Your task to perform on an android device: Go to battery settings Image 0: 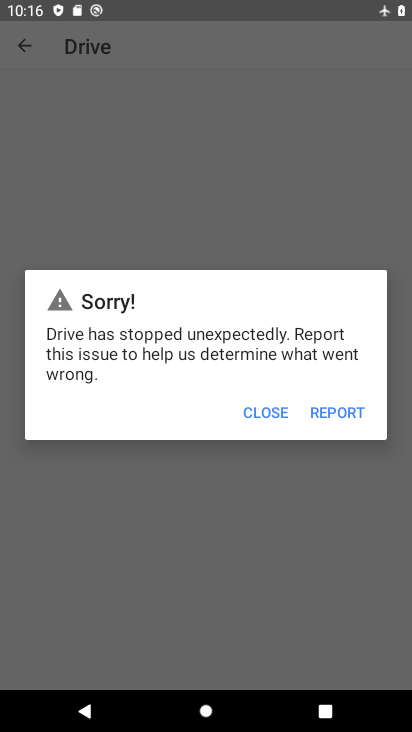
Step 0: press back button
Your task to perform on an android device: Go to battery settings Image 1: 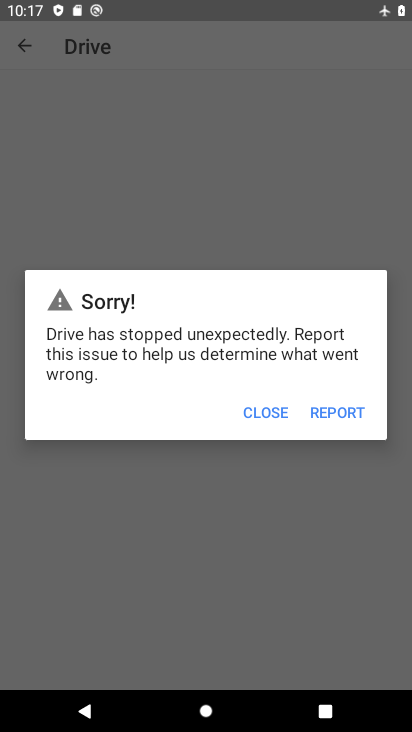
Step 1: press home button
Your task to perform on an android device: Go to battery settings Image 2: 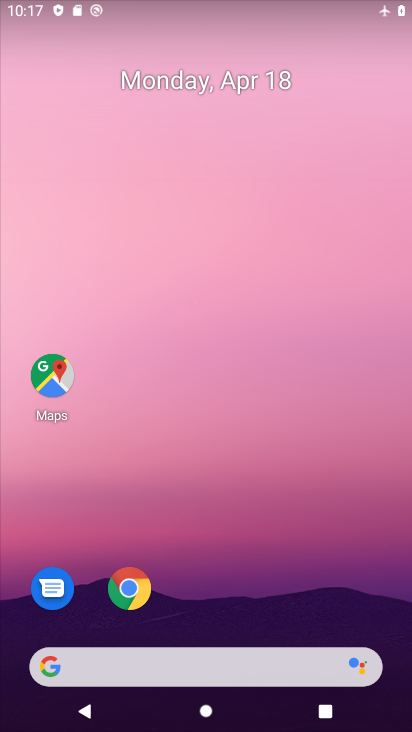
Step 2: drag from (238, 594) to (220, 69)
Your task to perform on an android device: Go to battery settings Image 3: 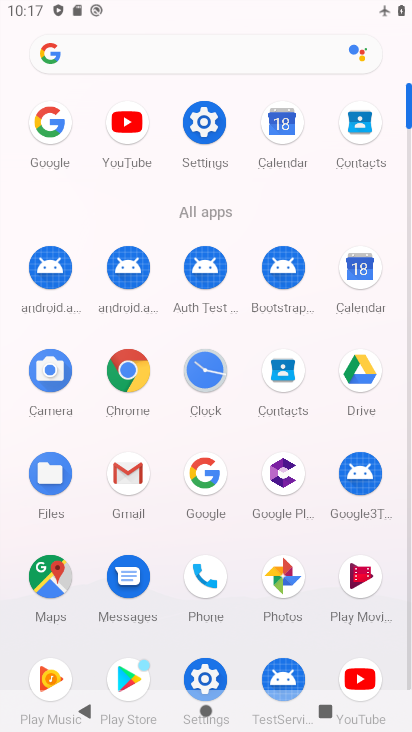
Step 3: click (207, 126)
Your task to perform on an android device: Go to battery settings Image 4: 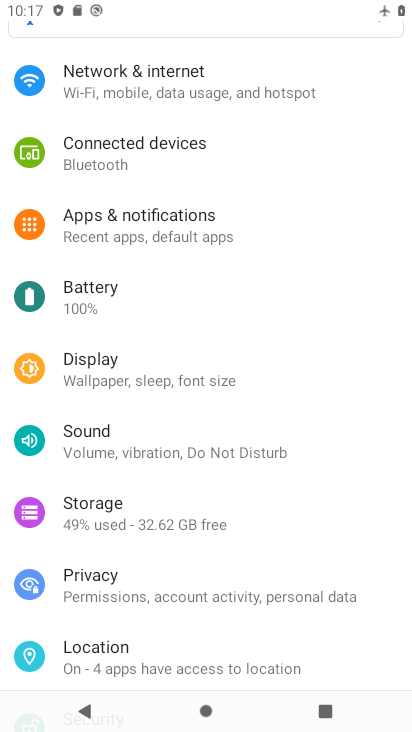
Step 4: click (137, 296)
Your task to perform on an android device: Go to battery settings Image 5: 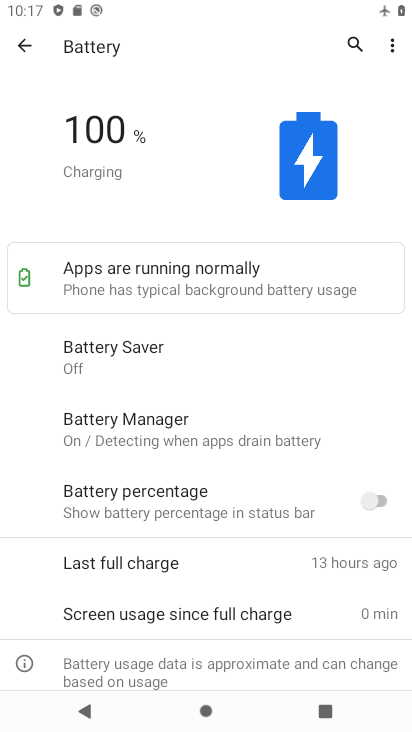
Step 5: task complete